Your task to perform on an android device: empty trash in the gmail app Image 0: 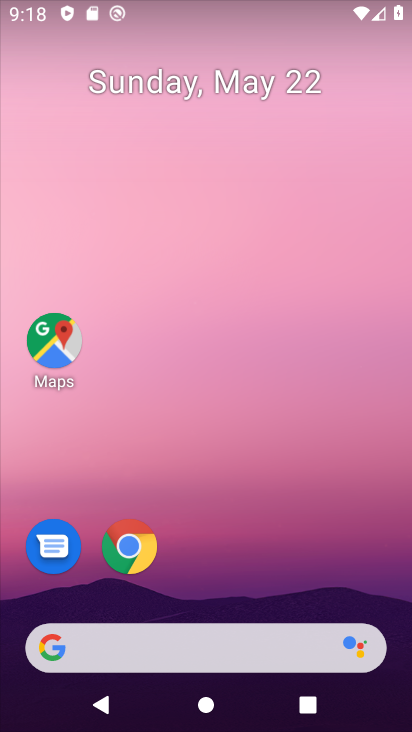
Step 0: drag from (303, 582) to (199, 51)
Your task to perform on an android device: empty trash in the gmail app Image 1: 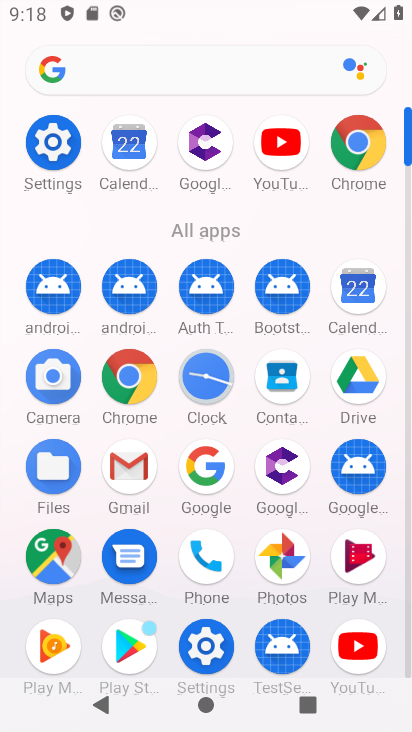
Step 1: click (127, 463)
Your task to perform on an android device: empty trash in the gmail app Image 2: 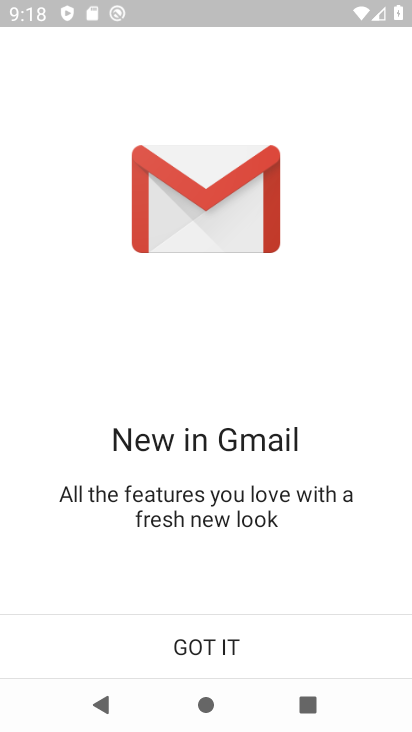
Step 2: click (204, 641)
Your task to perform on an android device: empty trash in the gmail app Image 3: 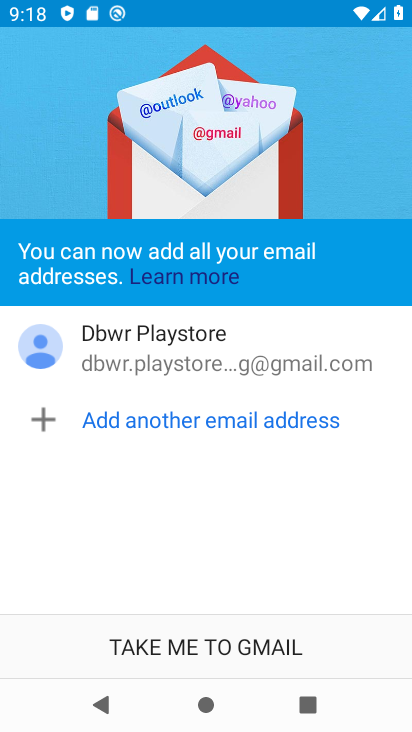
Step 3: click (204, 641)
Your task to perform on an android device: empty trash in the gmail app Image 4: 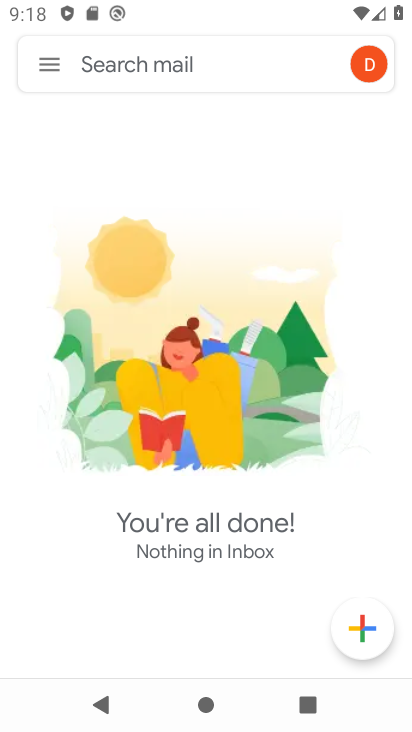
Step 4: click (37, 75)
Your task to perform on an android device: empty trash in the gmail app Image 5: 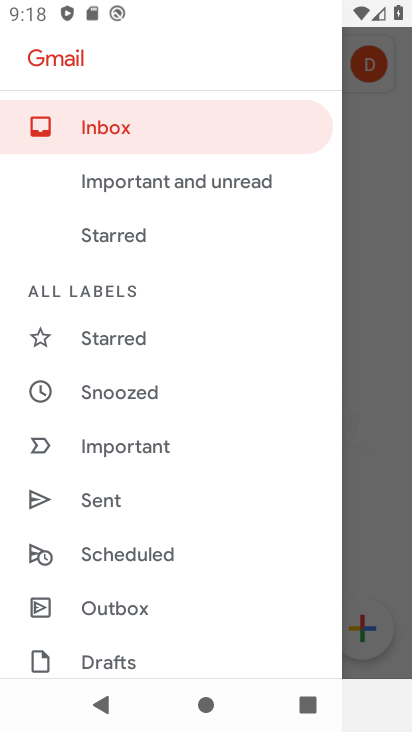
Step 5: drag from (176, 629) to (128, 157)
Your task to perform on an android device: empty trash in the gmail app Image 6: 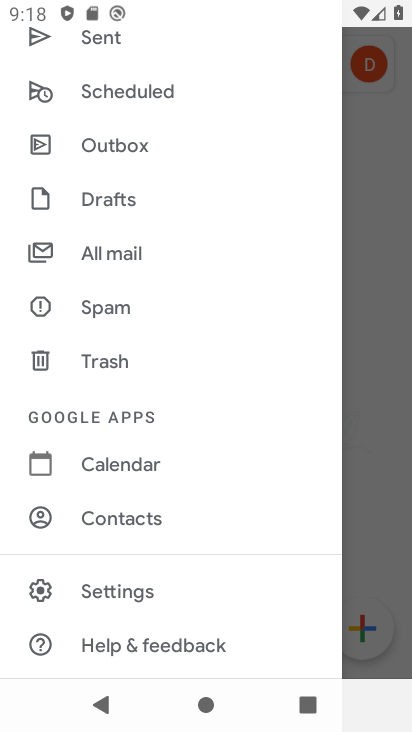
Step 6: click (151, 354)
Your task to perform on an android device: empty trash in the gmail app Image 7: 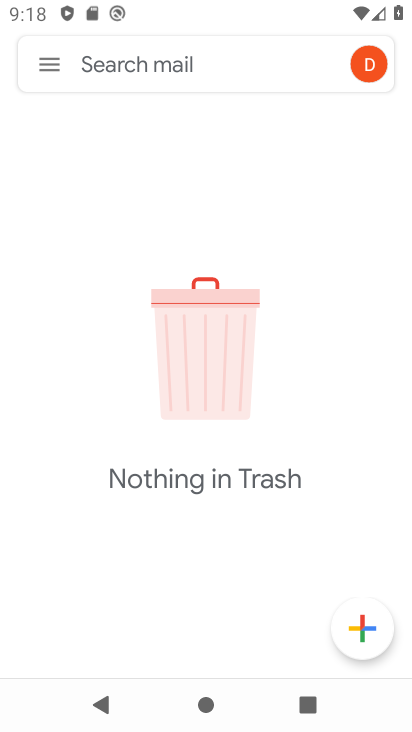
Step 7: task complete